Your task to perform on an android device: Go to sound settings Image 0: 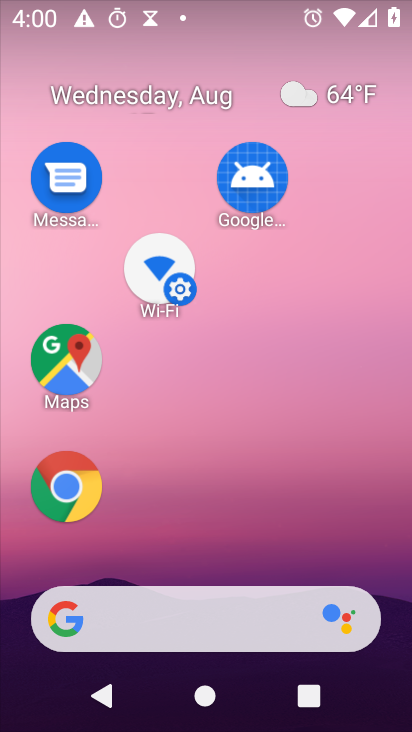
Step 0: press home button
Your task to perform on an android device: Go to sound settings Image 1: 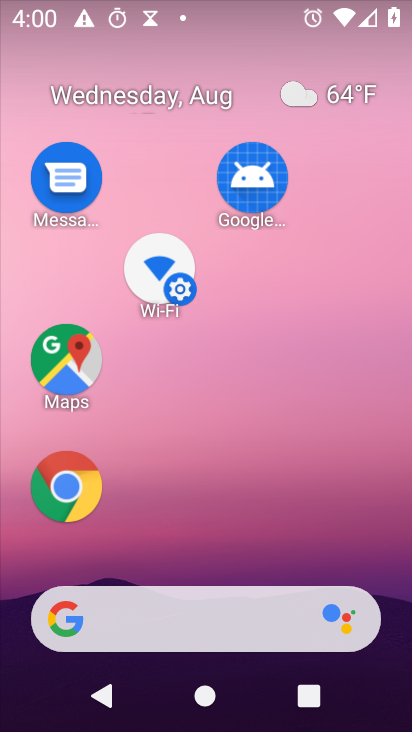
Step 1: click (386, 618)
Your task to perform on an android device: Go to sound settings Image 2: 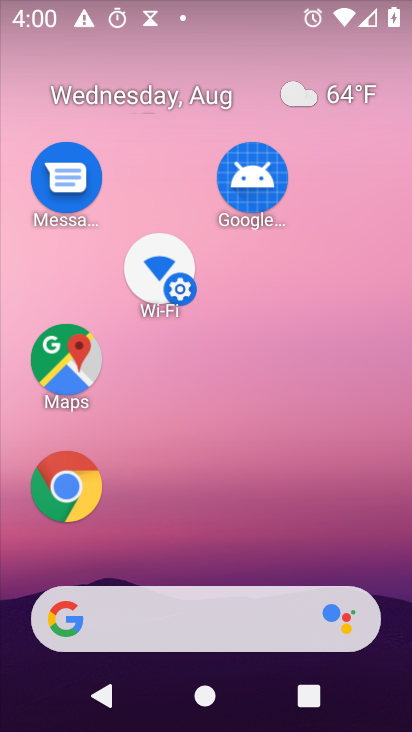
Step 2: drag from (263, 517) to (324, 167)
Your task to perform on an android device: Go to sound settings Image 3: 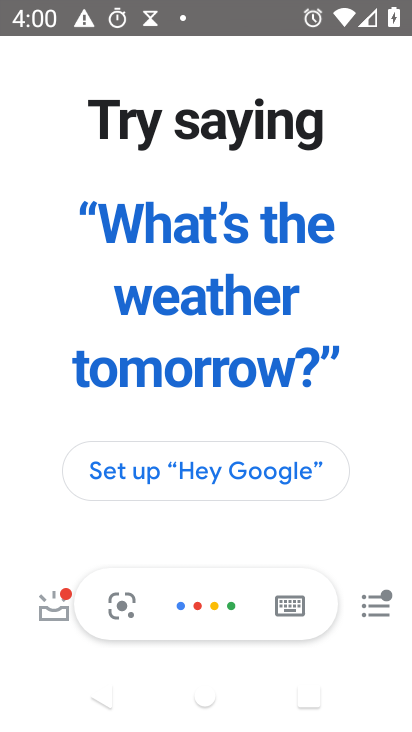
Step 3: press home button
Your task to perform on an android device: Go to sound settings Image 4: 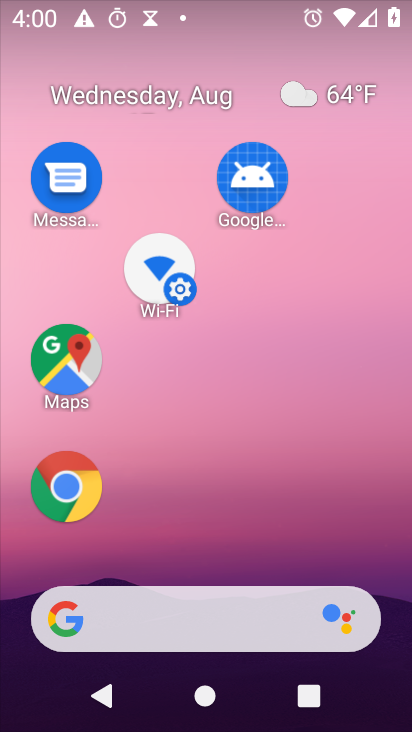
Step 4: drag from (283, 490) to (373, 110)
Your task to perform on an android device: Go to sound settings Image 5: 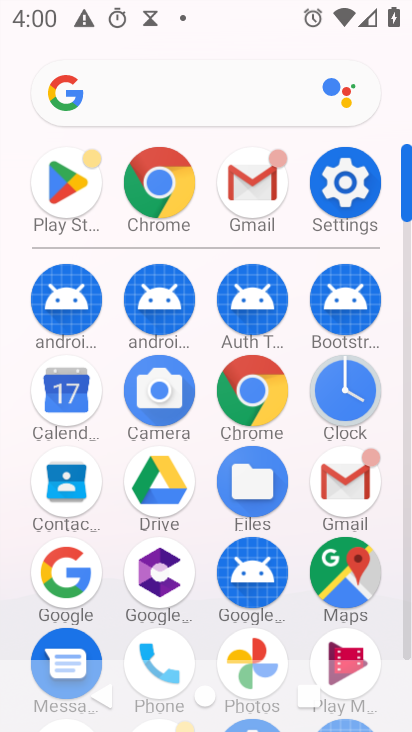
Step 5: click (349, 181)
Your task to perform on an android device: Go to sound settings Image 6: 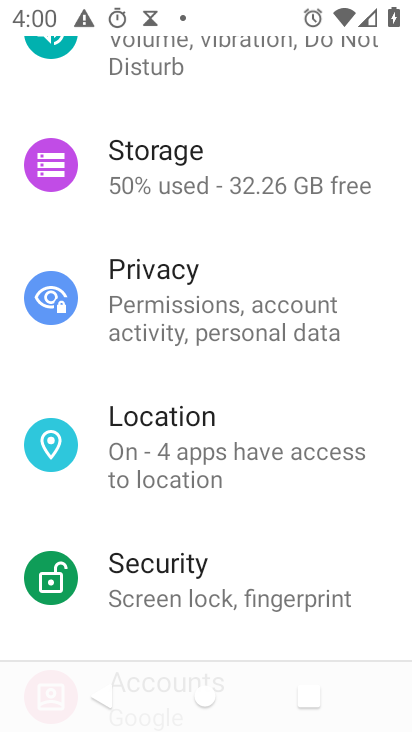
Step 6: drag from (215, 125) to (235, 644)
Your task to perform on an android device: Go to sound settings Image 7: 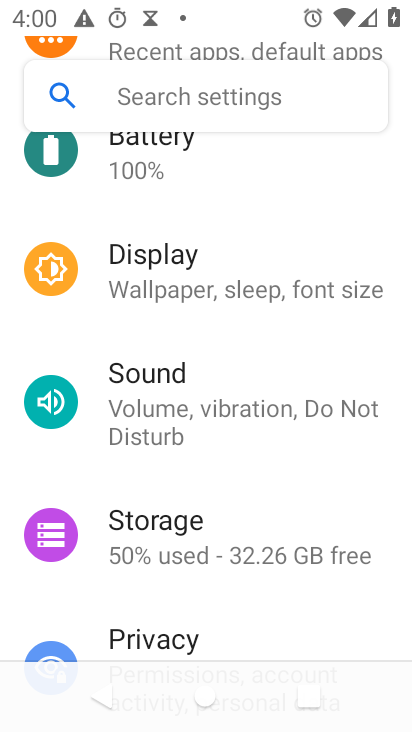
Step 7: click (156, 366)
Your task to perform on an android device: Go to sound settings Image 8: 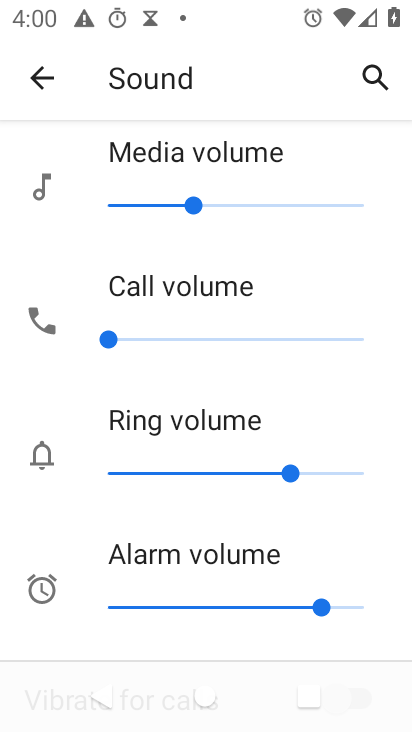
Step 8: task complete